Your task to perform on an android device: Open Google Chrome Image 0: 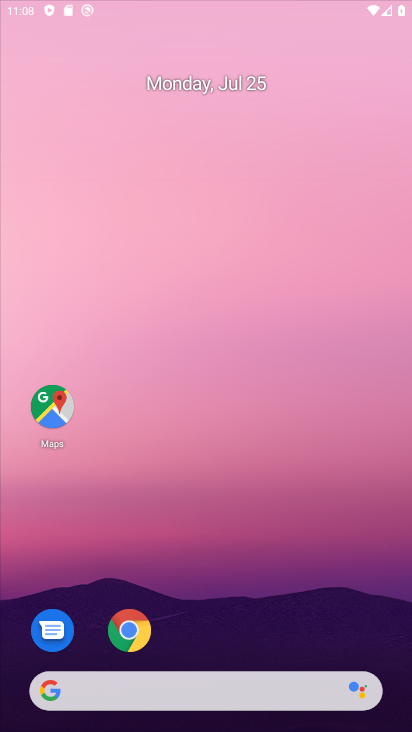
Step 0: drag from (263, 680) to (231, 181)
Your task to perform on an android device: Open Google Chrome Image 1: 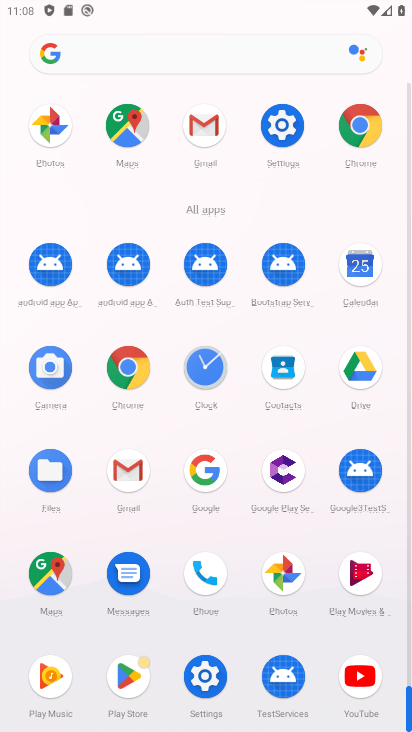
Step 1: drag from (270, 436) to (251, 112)
Your task to perform on an android device: Open Google Chrome Image 2: 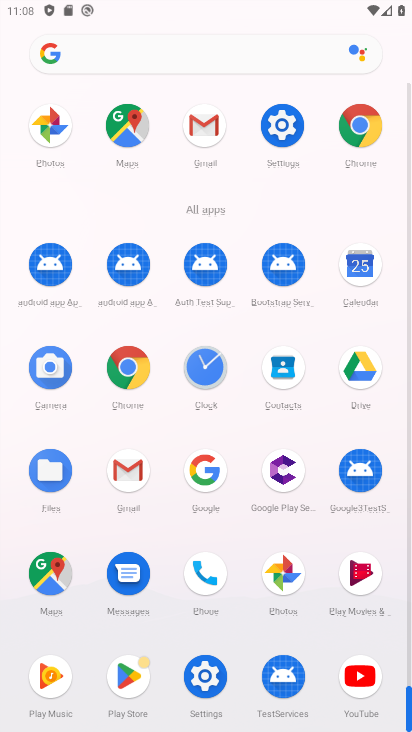
Step 2: click (365, 117)
Your task to perform on an android device: Open Google Chrome Image 3: 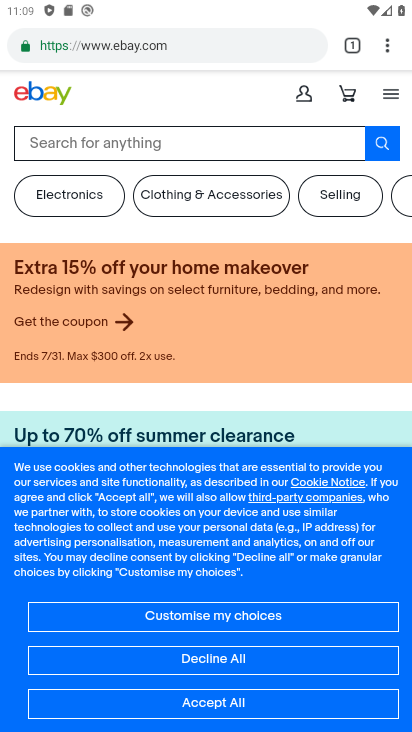
Step 3: press back button
Your task to perform on an android device: Open Google Chrome Image 4: 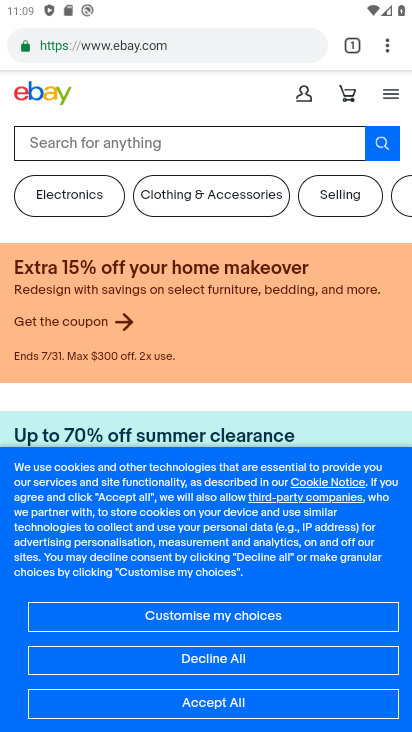
Step 4: press back button
Your task to perform on an android device: Open Google Chrome Image 5: 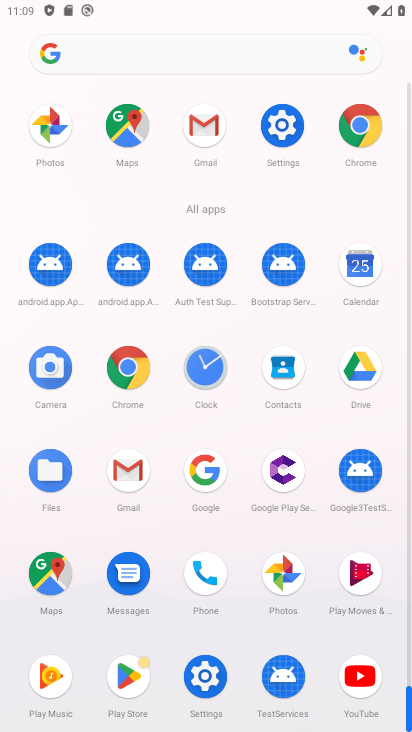
Step 5: click (351, 133)
Your task to perform on an android device: Open Google Chrome Image 6: 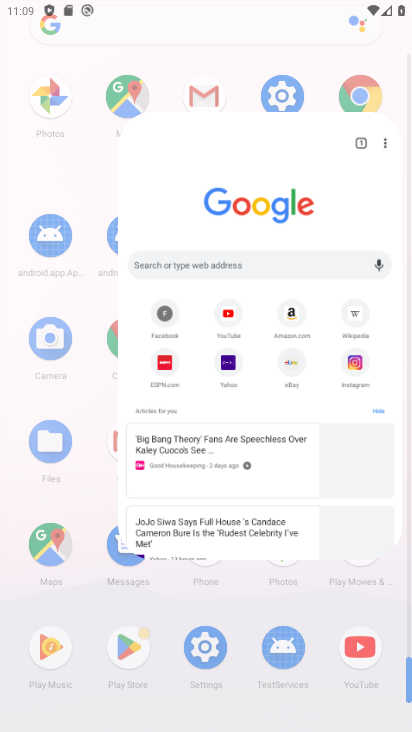
Step 6: click (355, 132)
Your task to perform on an android device: Open Google Chrome Image 7: 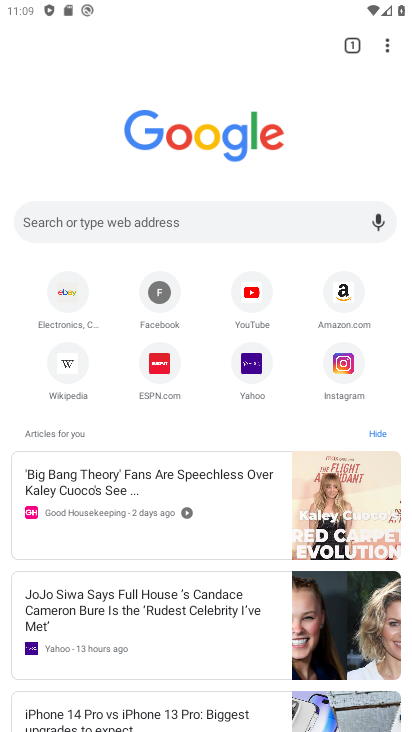
Step 7: task complete